Your task to perform on an android device: Go to Android settings Image 0: 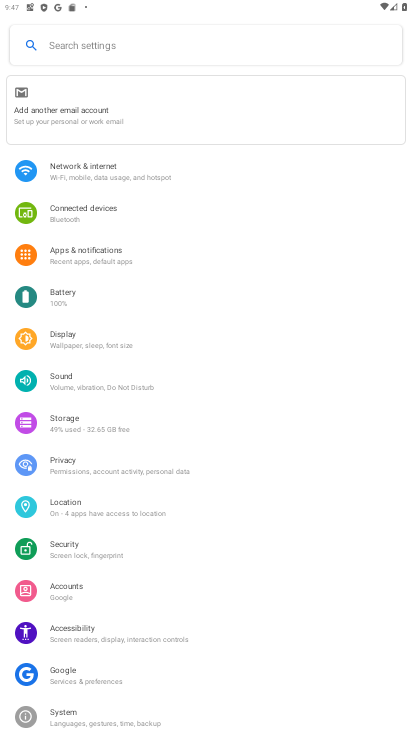
Step 0: drag from (210, 576) to (205, 179)
Your task to perform on an android device: Go to Android settings Image 1: 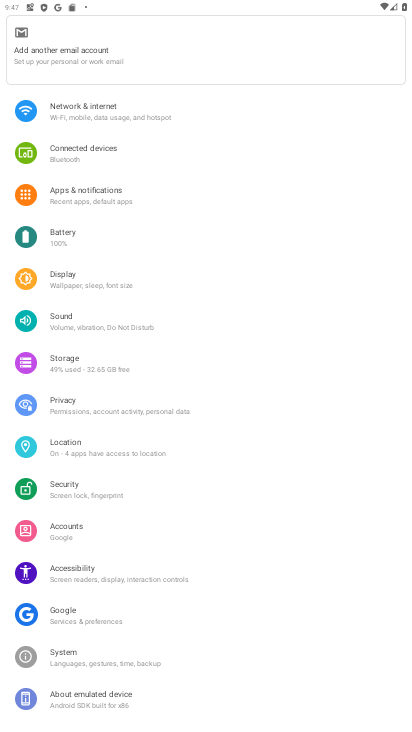
Step 1: task complete